Your task to perform on an android device: add a label to a message in the gmail app Image 0: 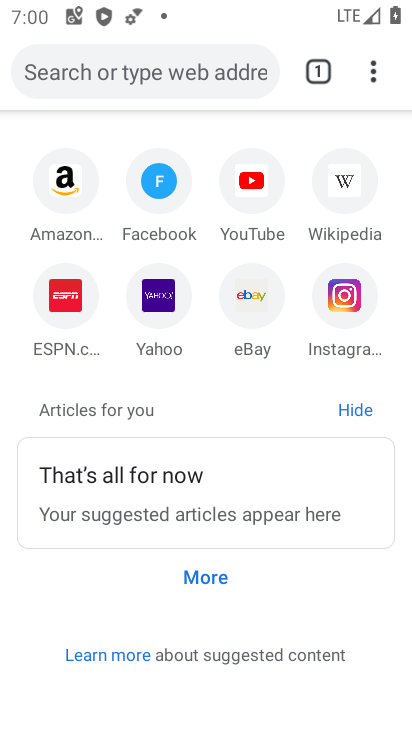
Step 0: press home button
Your task to perform on an android device: add a label to a message in the gmail app Image 1: 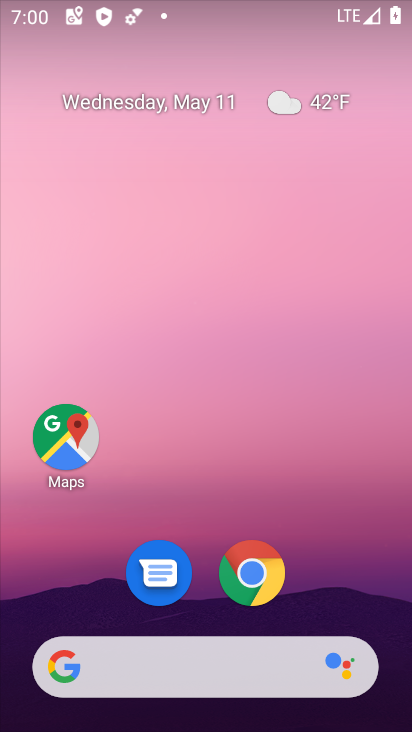
Step 1: drag from (327, 592) to (318, 115)
Your task to perform on an android device: add a label to a message in the gmail app Image 2: 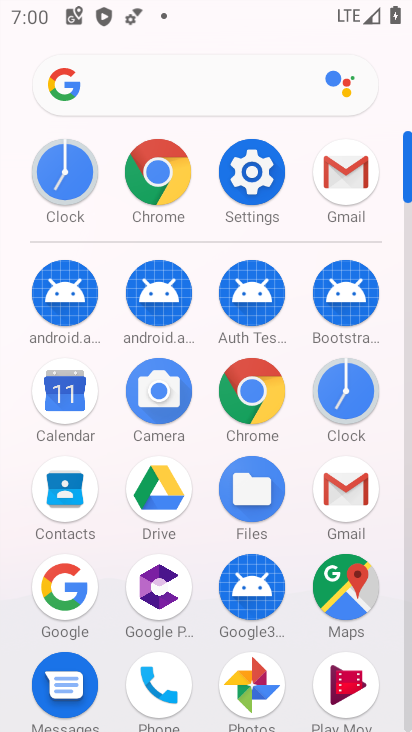
Step 2: click (346, 184)
Your task to perform on an android device: add a label to a message in the gmail app Image 3: 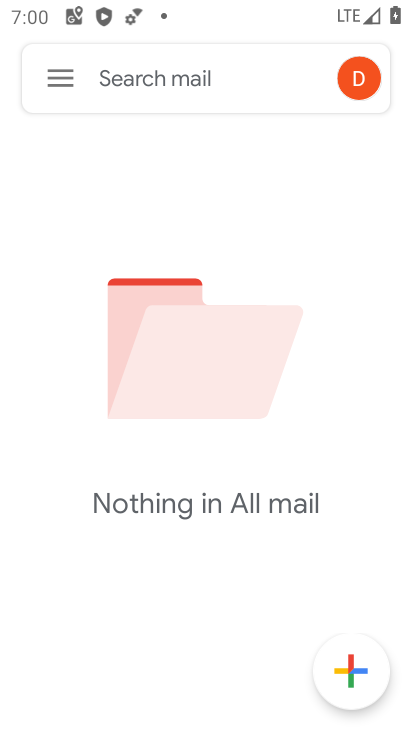
Step 3: click (62, 84)
Your task to perform on an android device: add a label to a message in the gmail app Image 4: 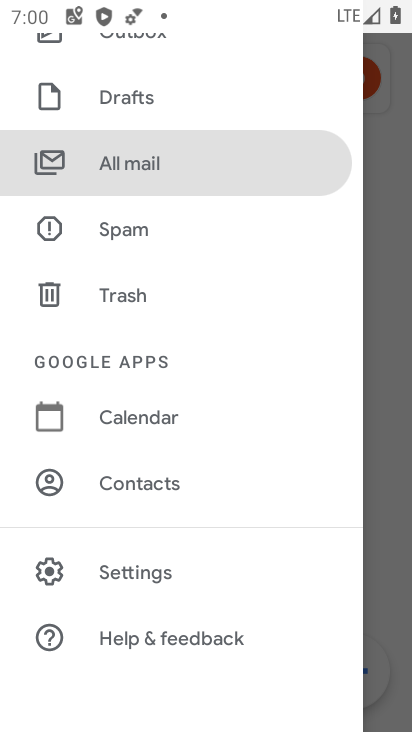
Step 4: click (127, 177)
Your task to perform on an android device: add a label to a message in the gmail app Image 5: 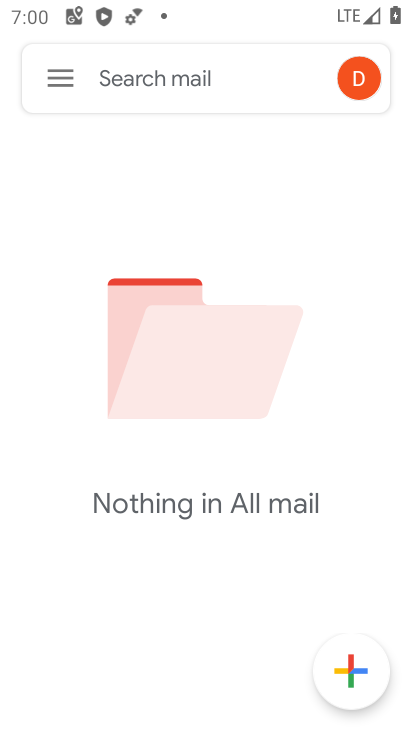
Step 5: task complete